Your task to perform on an android device: open the mobile data screen to see how much data has been used Image 0: 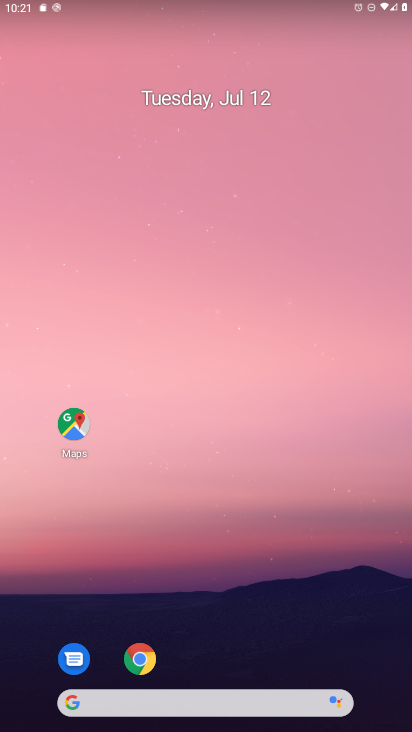
Step 0: drag from (211, 709) to (274, 46)
Your task to perform on an android device: open the mobile data screen to see how much data has been used Image 1: 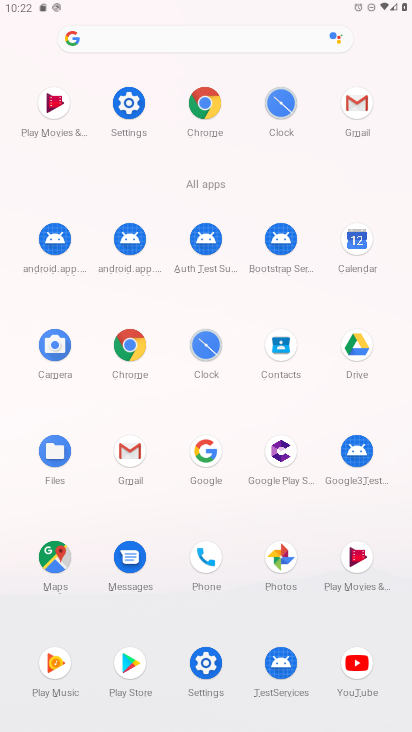
Step 1: click (129, 129)
Your task to perform on an android device: open the mobile data screen to see how much data has been used Image 2: 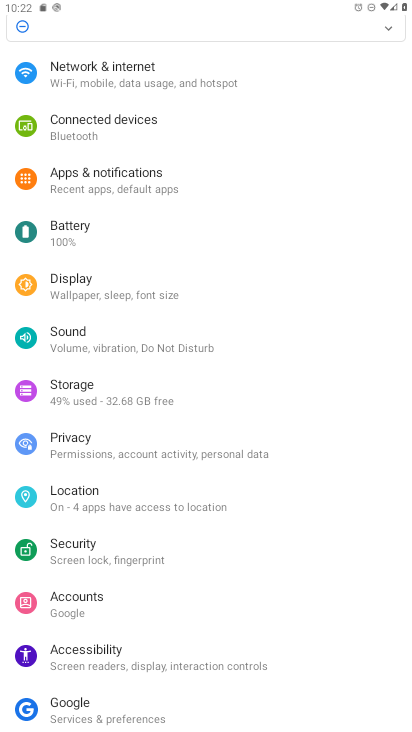
Step 2: click (82, 64)
Your task to perform on an android device: open the mobile data screen to see how much data has been used Image 3: 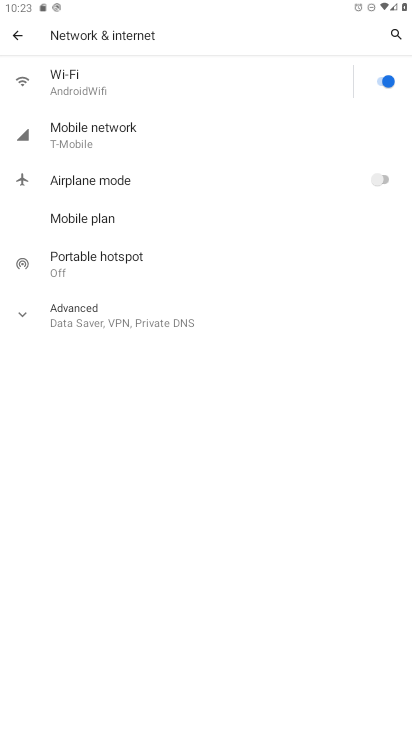
Step 3: click (94, 134)
Your task to perform on an android device: open the mobile data screen to see how much data has been used Image 4: 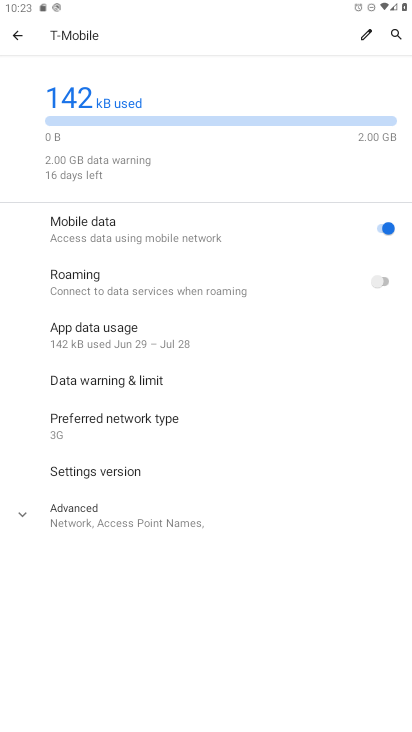
Step 4: task complete